Your task to perform on an android device: toggle translation in the chrome app Image 0: 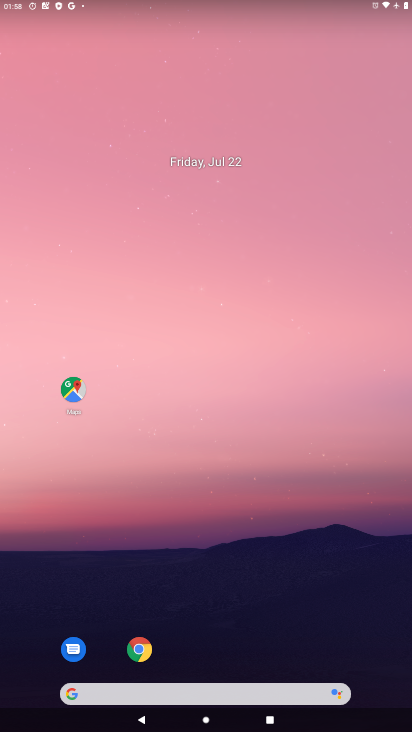
Step 0: drag from (254, 582) to (322, 107)
Your task to perform on an android device: toggle translation in the chrome app Image 1: 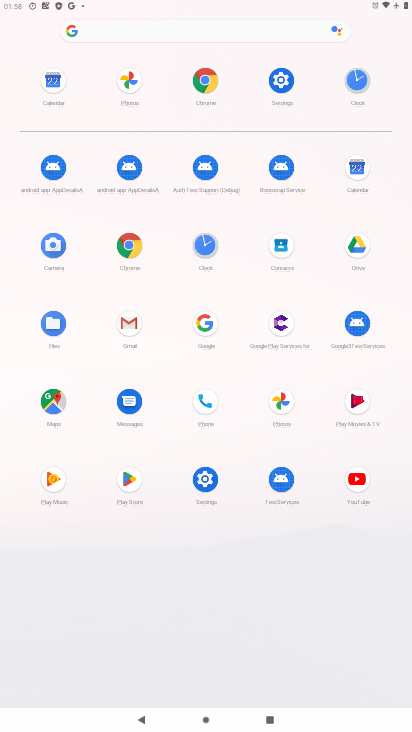
Step 1: click (126, 245)
Your task to perform on an android device: toggle translation in the chrome app Image 2: 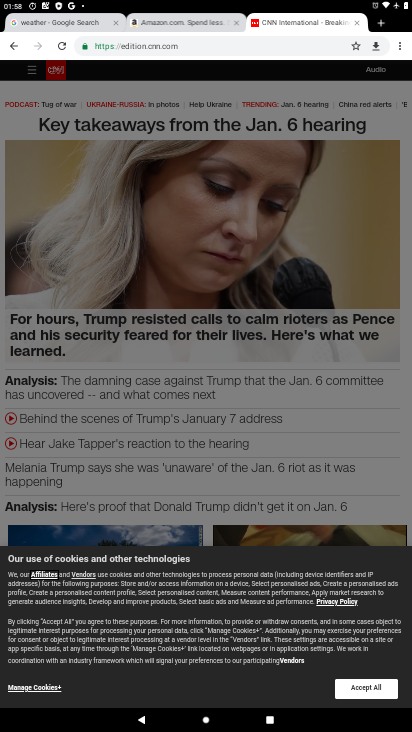
Step 2: drag from (401, 45) to (310, 312)
Your task to perform on an android device: toggle translation in the chrome app Image 3: 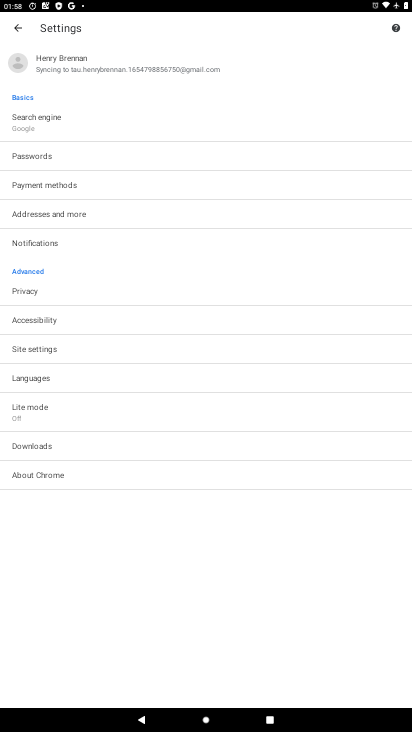
Step 3: click (42, 382)
Your task to perform on an android device: toggle translation in the chrome app Image 4: 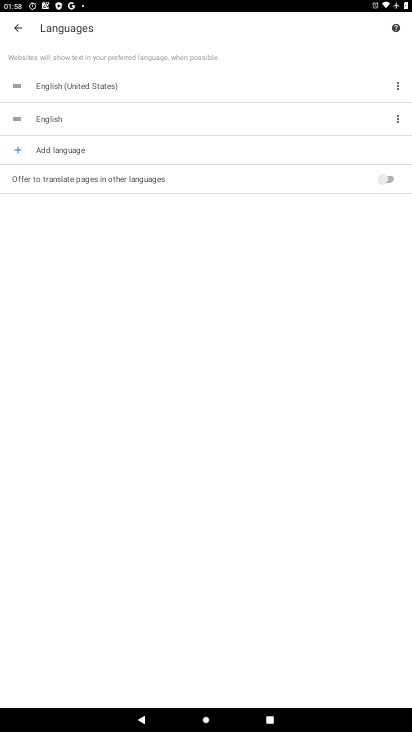
Step 4: click (377, 181)
Your task to perform on an android device: toggle translation in the chrome app Image 5: 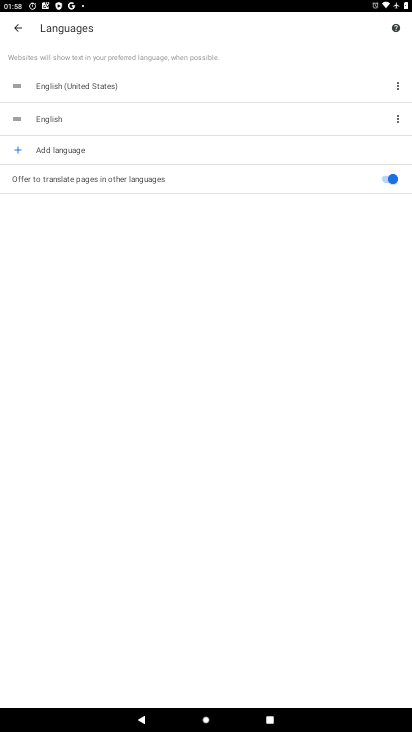
Step 5: task complete